Your task to perform on an android device: set the stopwatch Image 0: 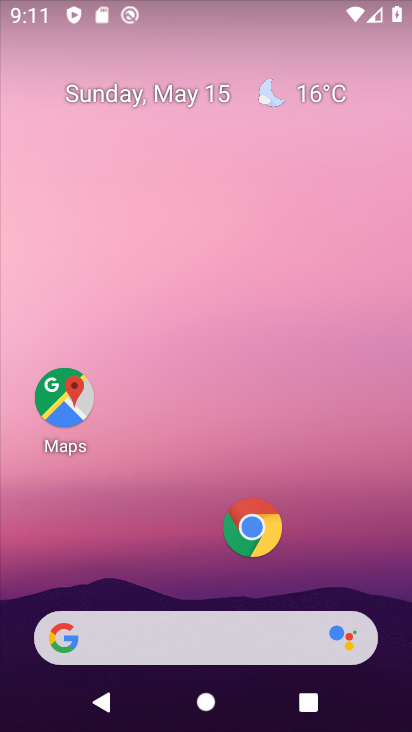
Step 0: drag from (195, 585) to (176, 40)
Your task to perform on an android device: set the stopwatch Image 1: 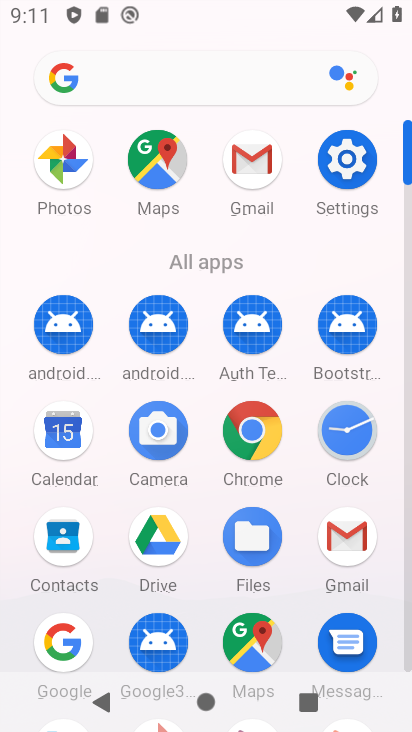
Step 1: click (350, 154)
Your task to perform on an android device: set the stopwatch Image 2: 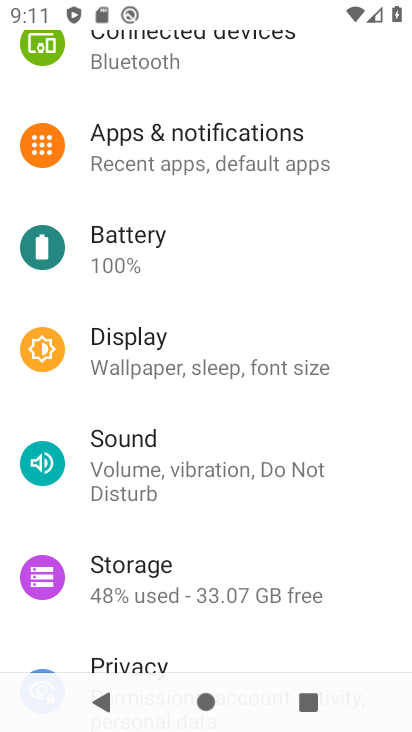
Step 2: press home button
Your task to perform on an android device: set the stopwatch Image 3: 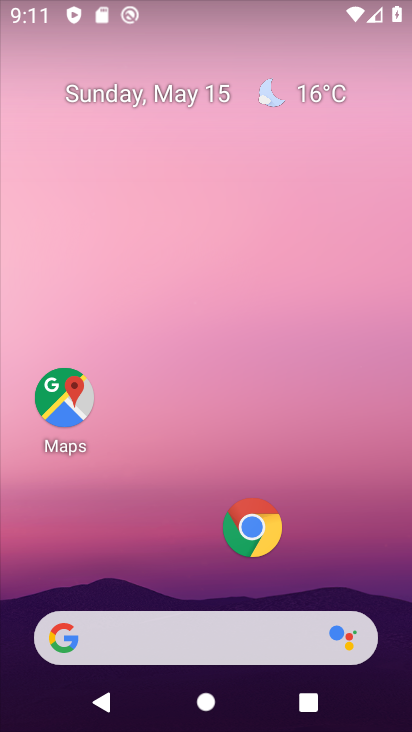
Step 3: drag from (224, 555) to (200, 28)
Your task to perform on an android device: set the stopwatch Image 4: 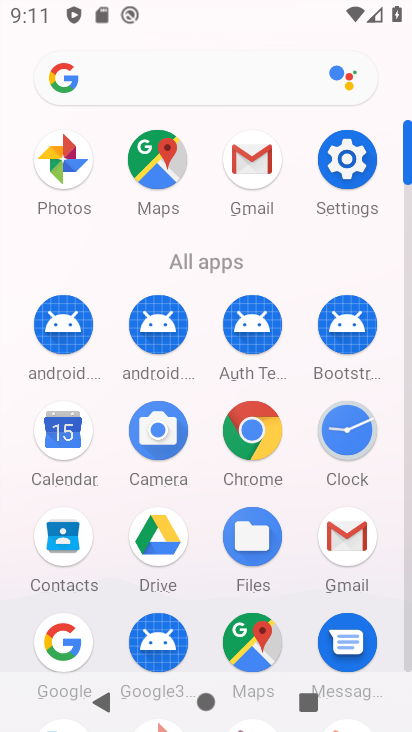
Step 4: click (344, 423)
Your task to perform on an android device: set the stopwatch Image 5: 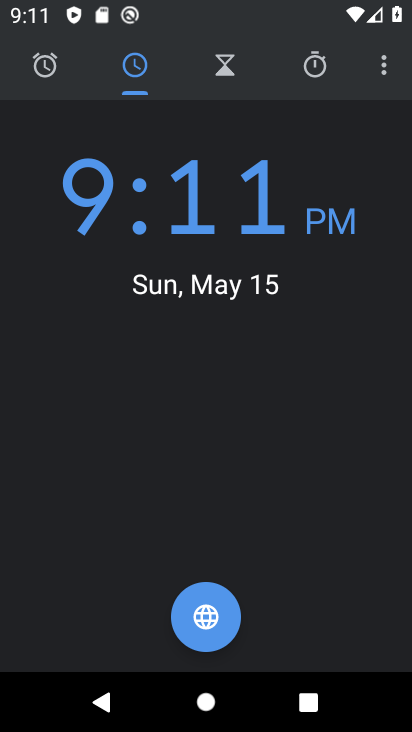
Step 5: click (308, 61)
Your task to perform on an android device: set the stopwatch Image 6: 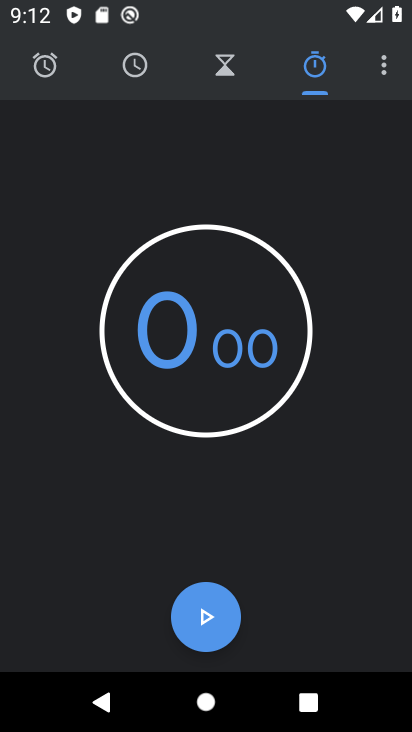
Step 6: click (210, 615)
Your task to perform on an android device: set the stopwatch Image 7: 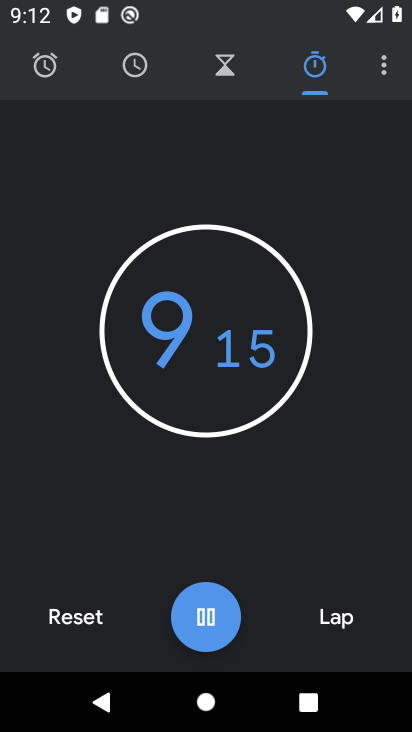
Step 7: click (86, 615)
Your task to perform on an android device: set the stopwatch Image 8: 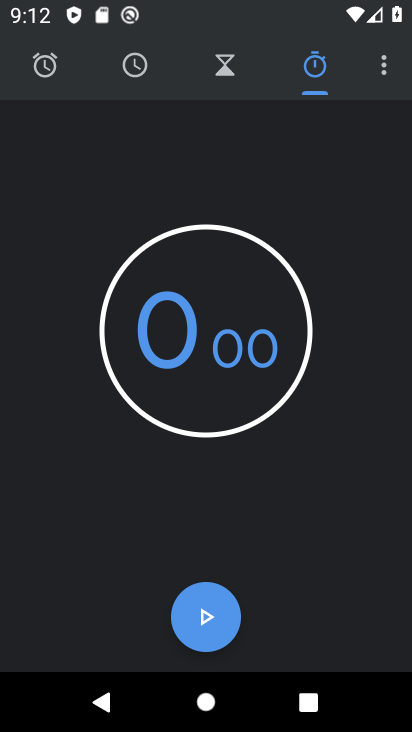
Step 8: task complete